Your task to perform on an android device: read, delete, or share a saved page in the chrome app Image 0: 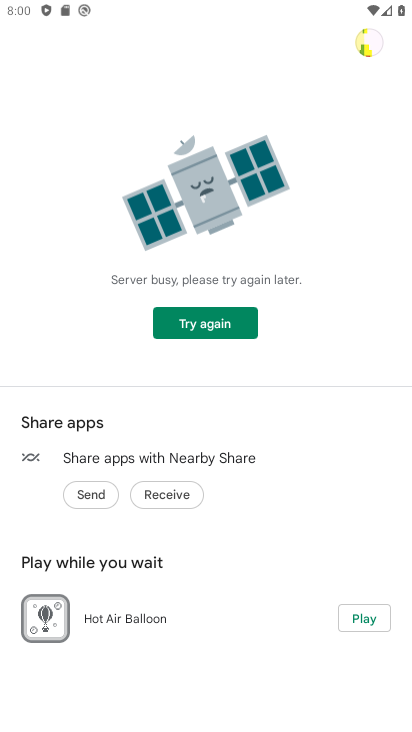
Step 0: press home button
Your task to perform on an android device: read, delete, or share a saved page in the chrome app Image 1: 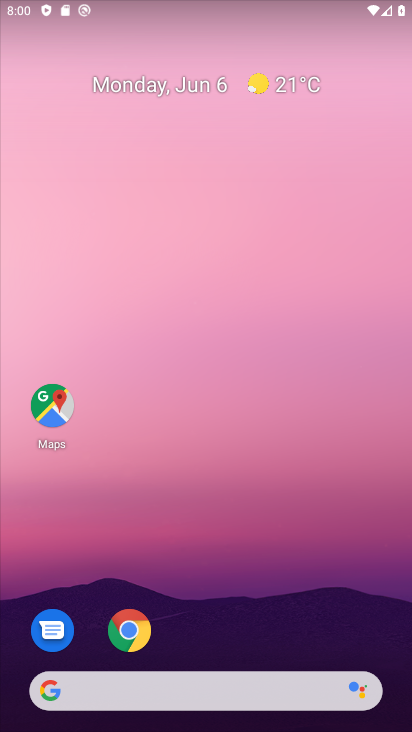
Step 1: click (135, 636)
Your task to perform on an android device: read, delete, or share a saved page in the chrome app Image 2: 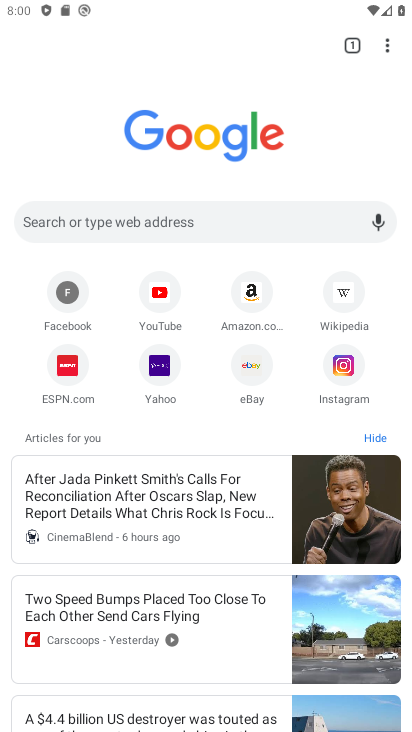
Step 2: drag from (381, 49) to (294, 280)
Your task to perform on an android device: read, delete, or share a saved page in the chrome app Image 3: 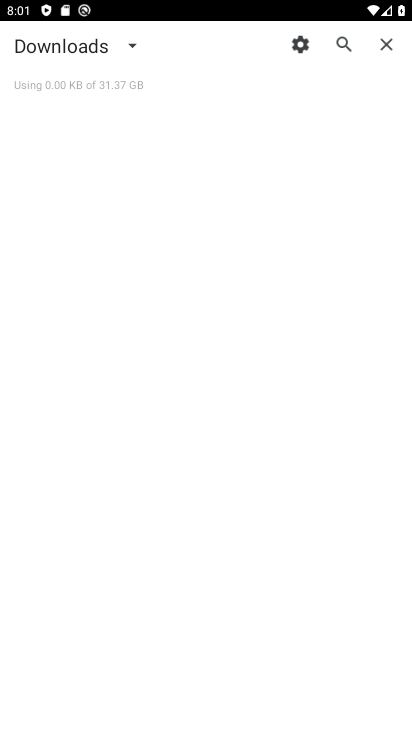
Step 3: click (121, 42)
Your task to perform on an android device: read, delete, or share a saved page in the chrome app Image 4: 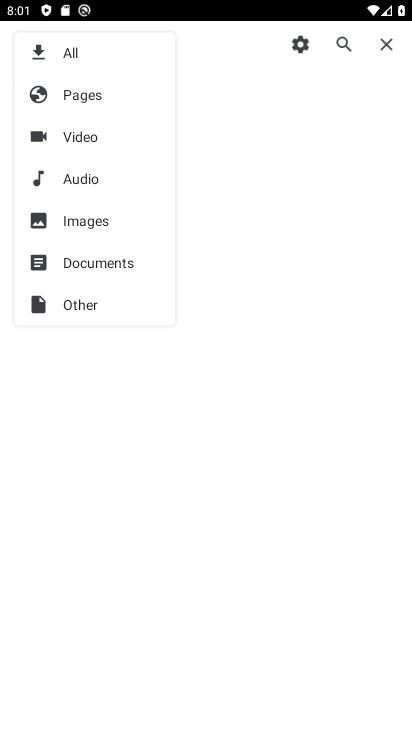
Step 4: click (101, 95)
Your task to perform on an android device: read, delete, or share a saved page in the chrome app Image 5: 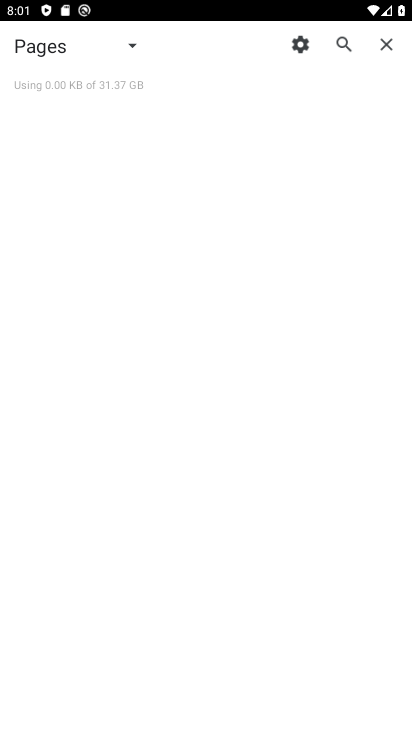
Step 5: task complete